Your task to perform on an android device: What's the news in the Dominican Republic? Image 0: 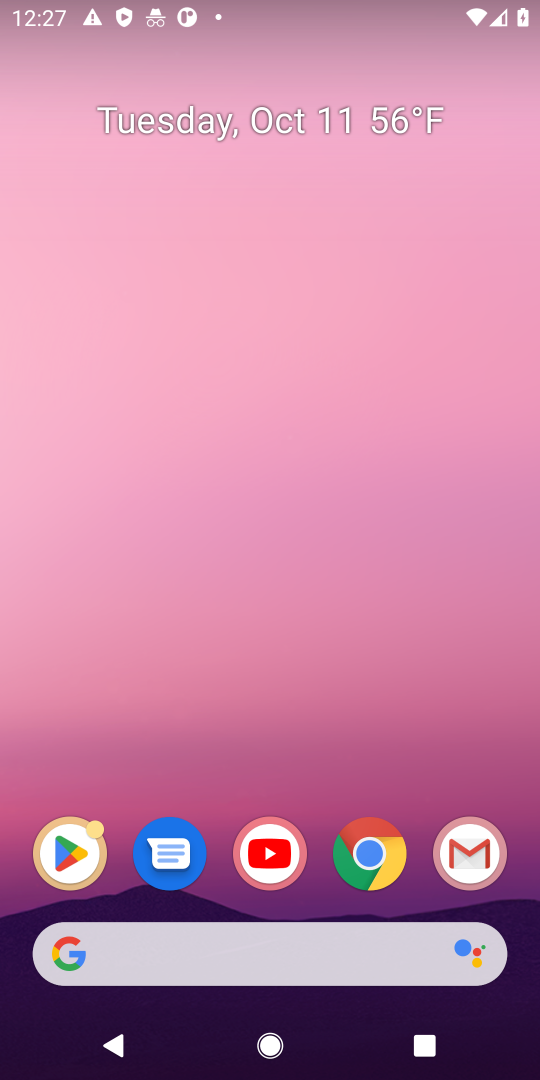
Step 0: drag from (335, 800) to (472, 14)
Your task to perform on an android device: What's the news in the Dominican Republic? Image 1: 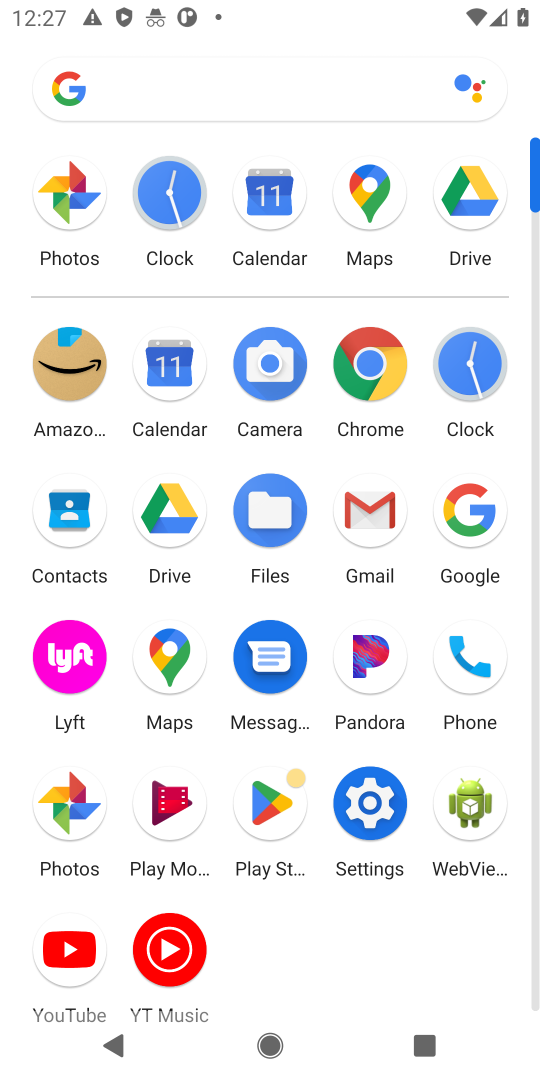
Step 1: click (374, 354)
Your task to perform on an android device: What's the news in the Dominican Republic? Image 2: 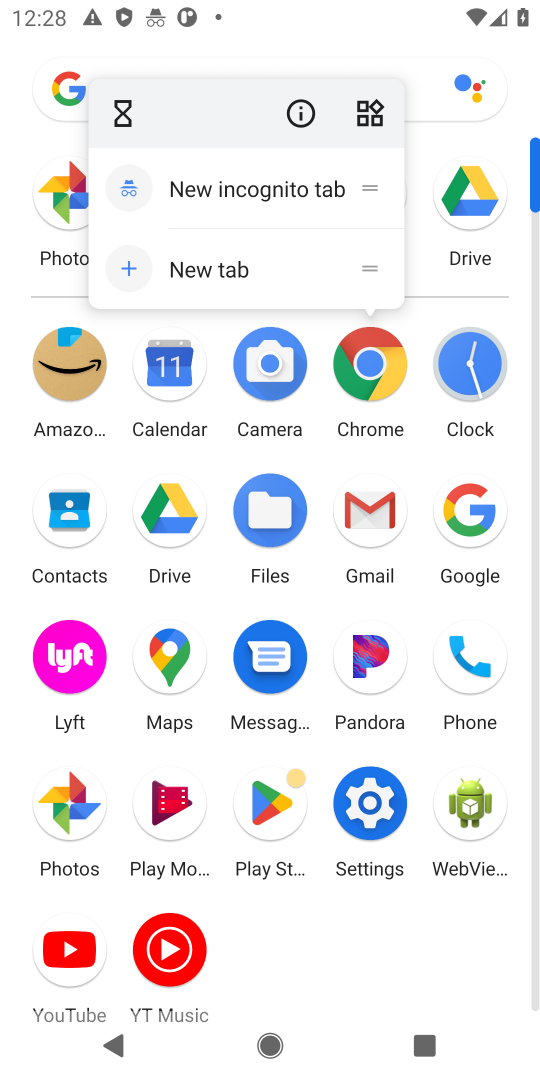
Step 2: click (364, 378)
Your task to perform on an android device: What's the news in the Dominican Republic? Image 3: 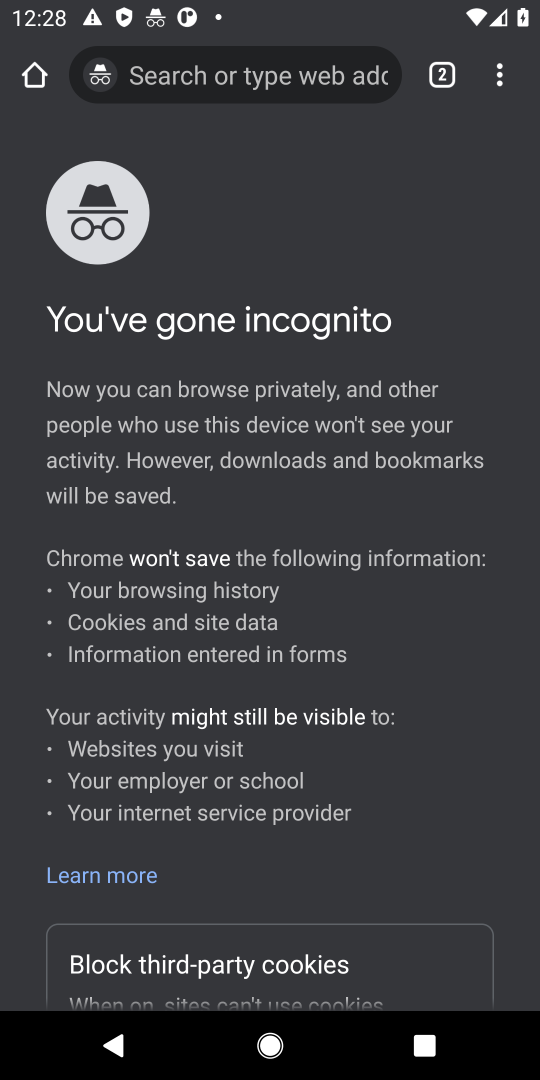
Step 3: drag from (499, 78) to (271, 145)
Your task to perform on an android device: What's the news in the Dominican Republic? Image 4: 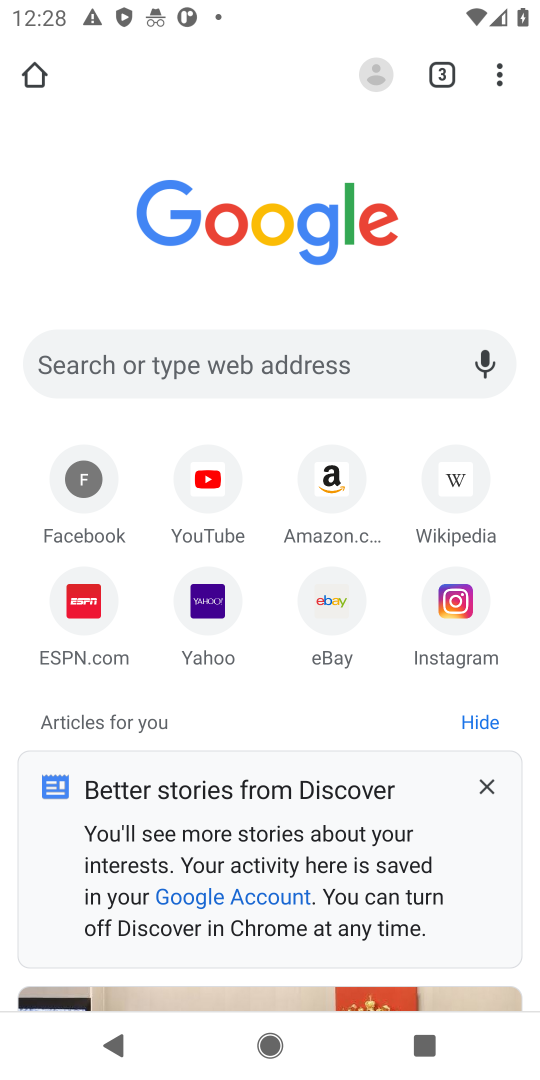
Step 4: click (268, 355)
Your task to perform on an android device: What's the news in the Dominican Republic? Image 5: 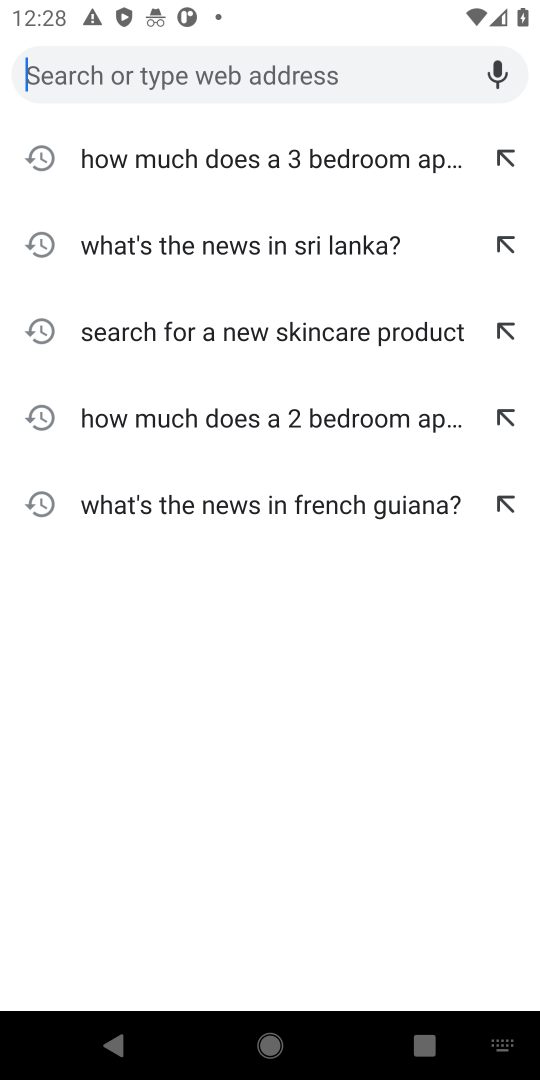
Step 5: type "What's the news in the Dominican Republic?"
Your task to perform on an android device: What's the news in the Dominican Republic? Image 6: 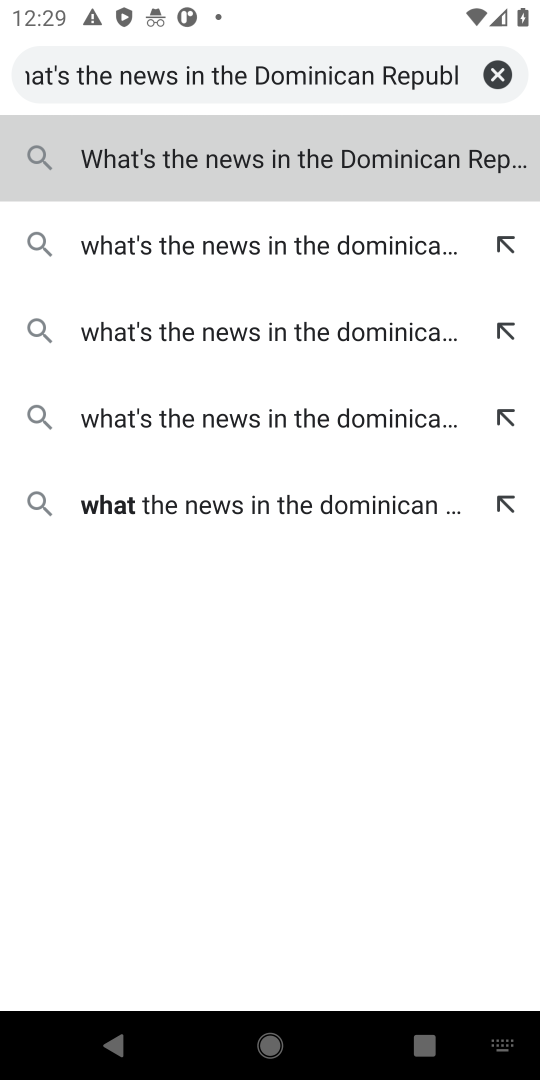
Step 6: click (367, 165)
Your task to perform on an android device: What's the news in the Dominican Republic? Image 7: 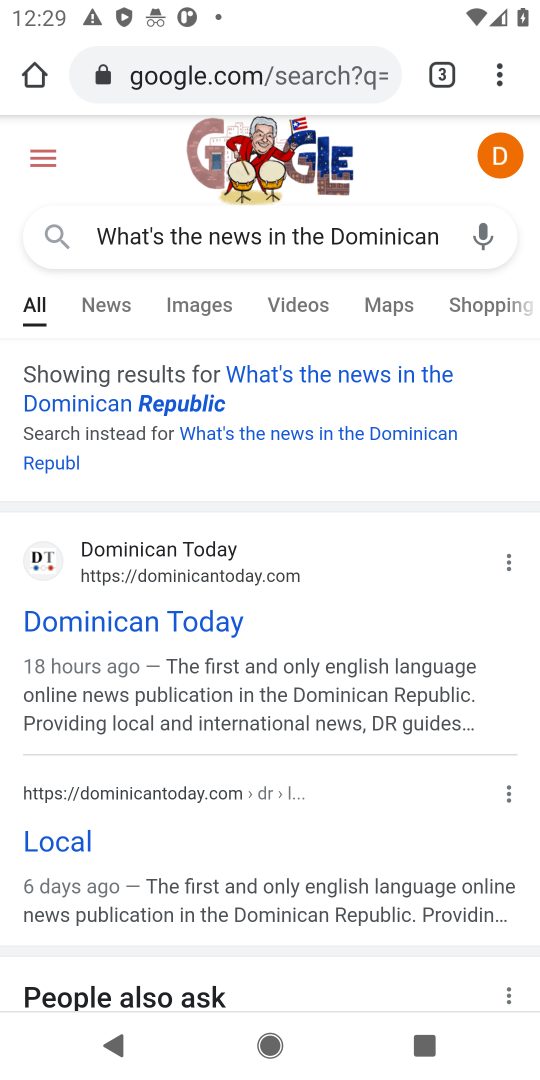
Step 7: task complete